Your task to perform on an android device: check google app version Image 0: 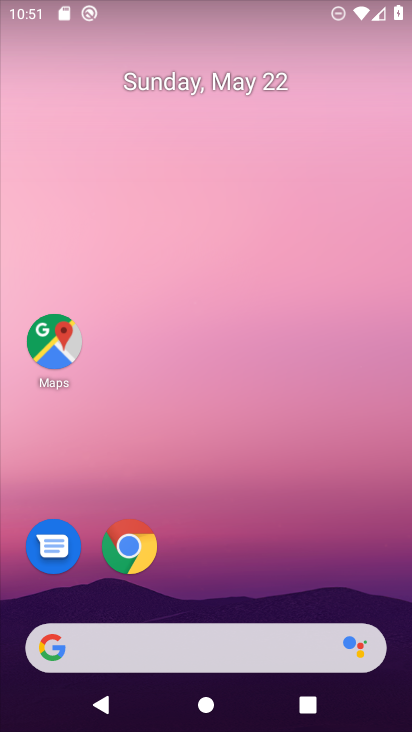
Step 0: click (43, 653)
Your task to perform on an android device: check google app version Image 1: 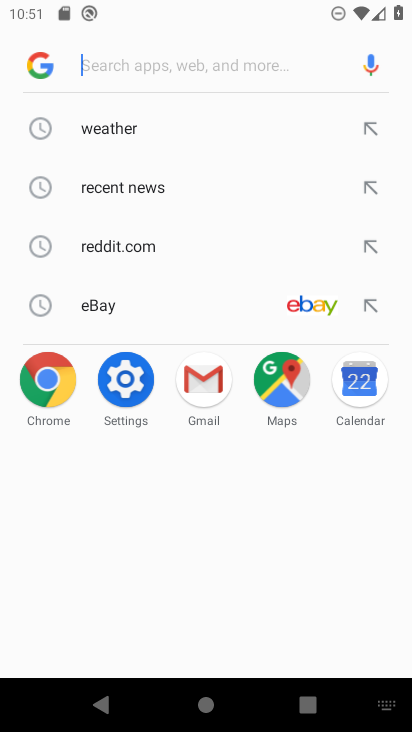
Step 1: click (37, 67)
Your task to perform on an android device: check google app version Image 2: 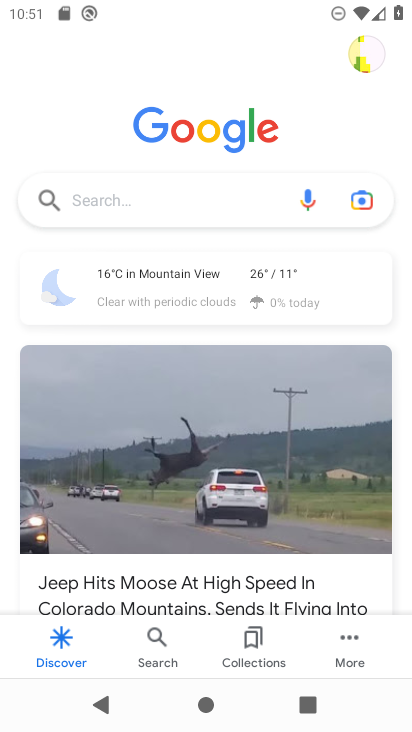
Step 2: click (347, 636)
Your task to perform on an android device: check google app version Image 3: 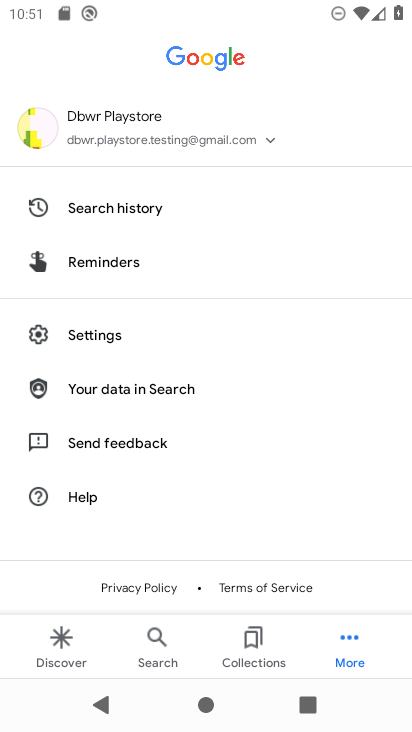
Step 3: click (105, 329)
Your task to perform on an android device: check google app version Image 4: 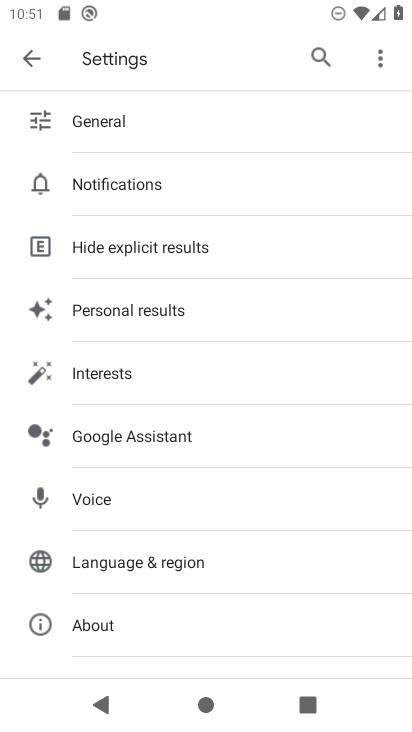
Step 4: click (107, 623)
Your task to perform on an android device: check google app version Image 5: 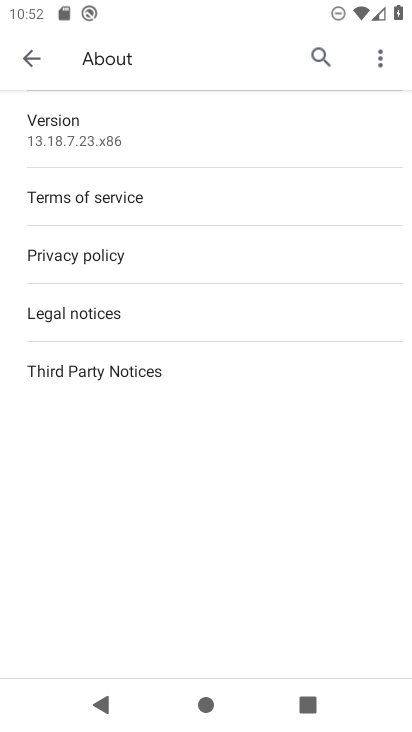
Step 5: task complete